Your task to perform on an android device: Open Google Maps Image 0: 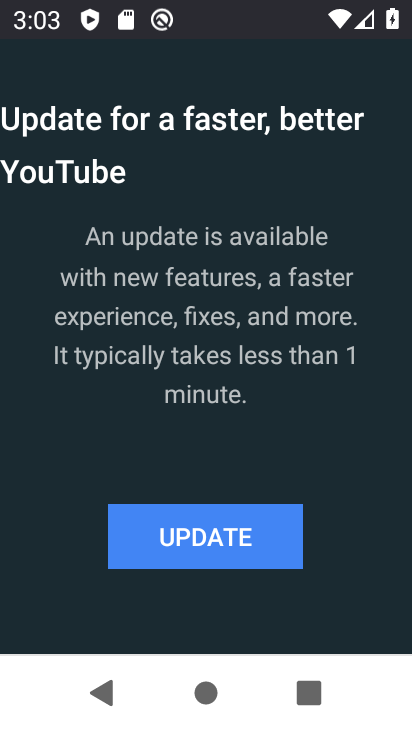
Step 0: press home button
Your task to perform on an android device: Open Google Maps Image 1: 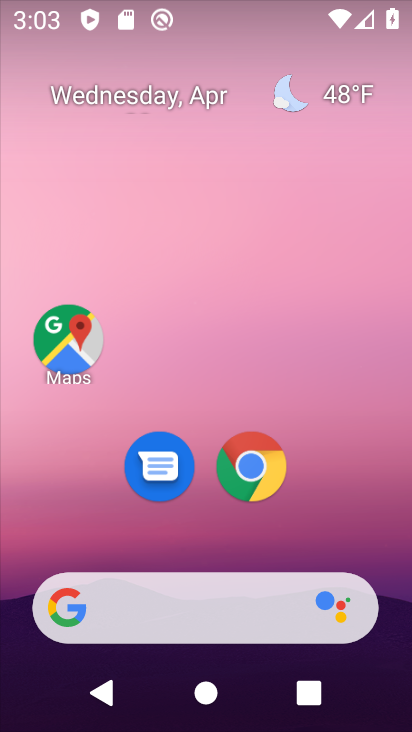
Step 1: press back button
Your task to perform on an android device: Open Google Maps Image 2: 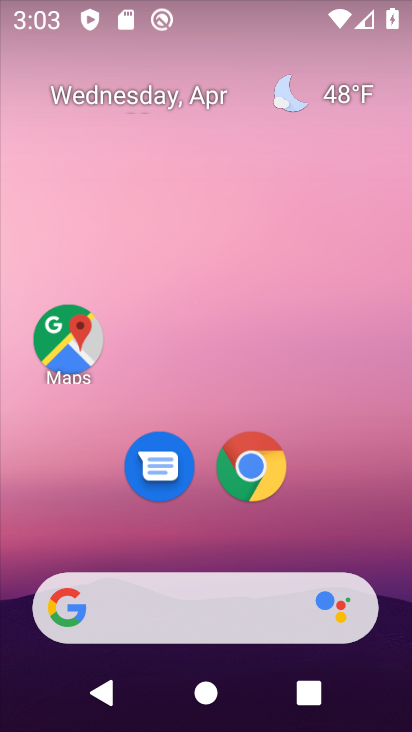
Step 2: click (62, 330)
Your task to perform on an android device: Open Google Maps Image 3: 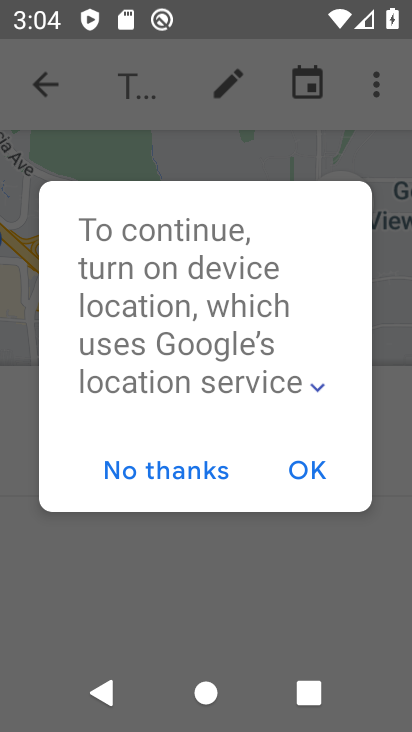
Step 3: click (167, 470)
Your task to perform on an android device: Open Google Maps Image 4: 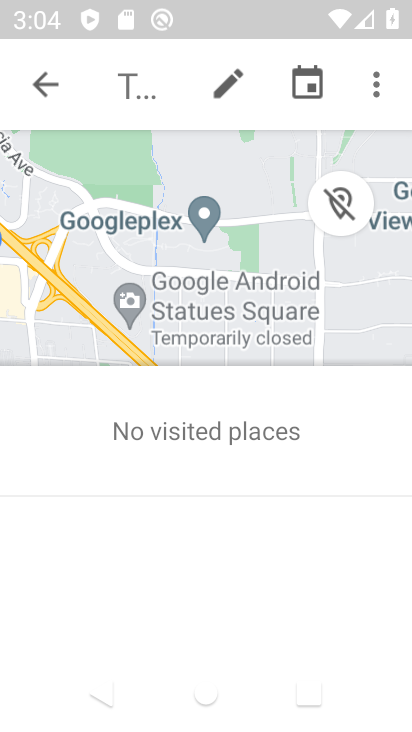
Step 4: click (44, 78)
Your task to perform on an android device: Open Google Maps Image 5: 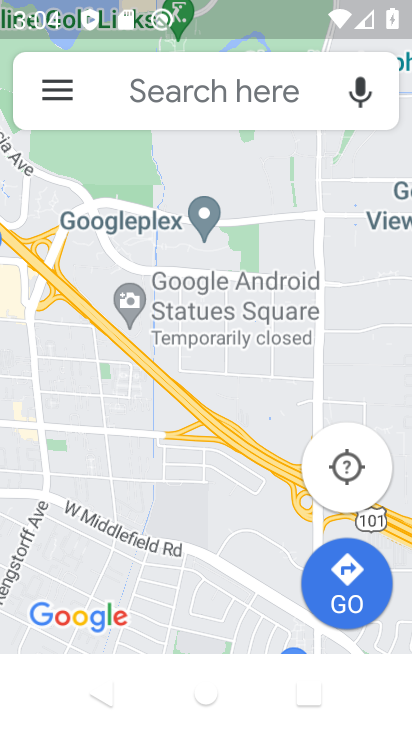
Step 5: click (121, 86)
Your task to perform on an android device: Open Google Maps Image 6: 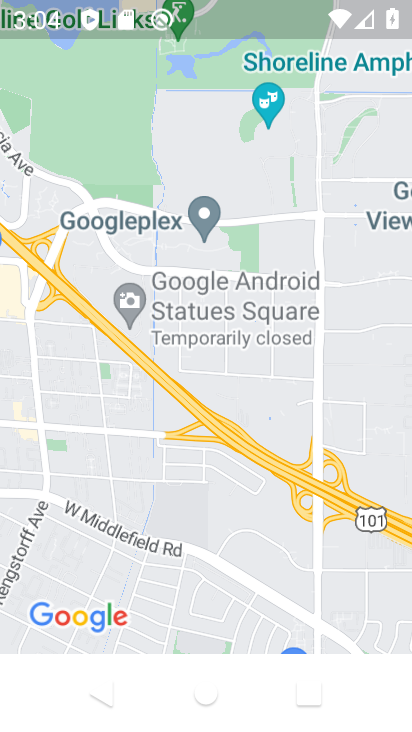
Step 6: task complete